Your task to perform on an android device: visit the assistant section in the google photos Image 0: 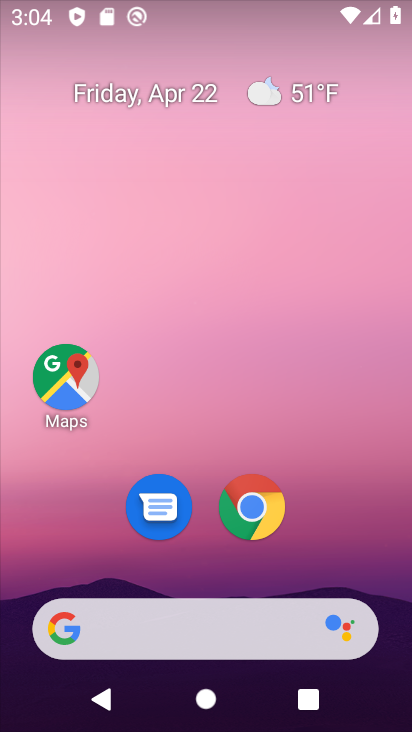
Step 0: drag from (215, 574) to (378, 26)
Your task to perform on an android device: visit the assistant section in the google photos Image 1: 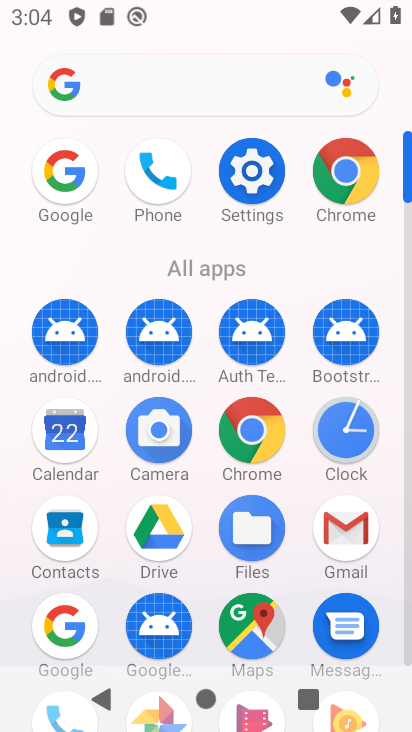
Step 1: drag from (204, 590) to (182, 326)
Your task to perform on an android device: visit the assistant section in the google photos Image 2: 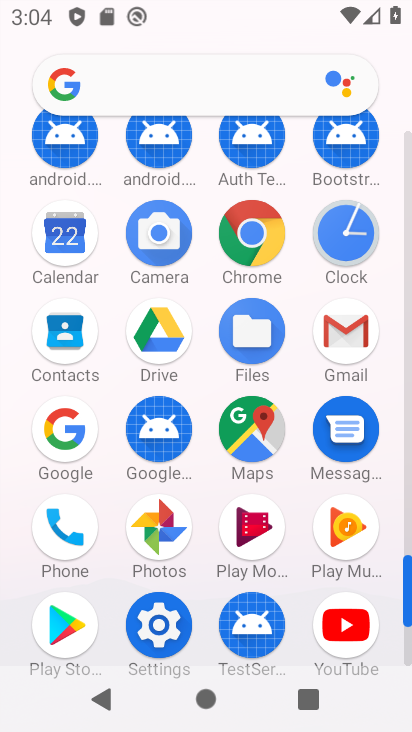
Step 2: click (171, 532)
Your task to perform on an android device: visit the assistant section in the google photos Image 3: 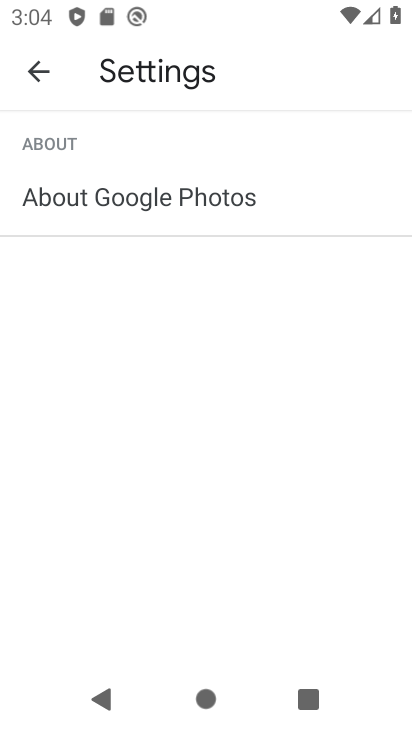
Step 3: click (32, 50)
Your task to perform on an android device: visit the assistant section in the google photos Image 4: 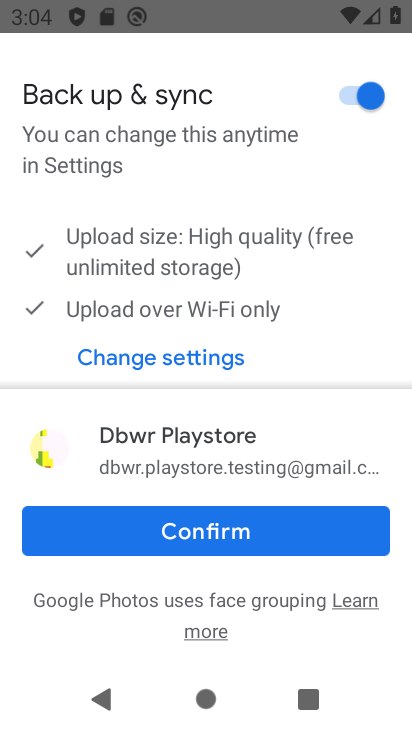
Step 4: click (195, 529)
Your task to perform on an android device: visit the assistant section in the google photos Image 5: 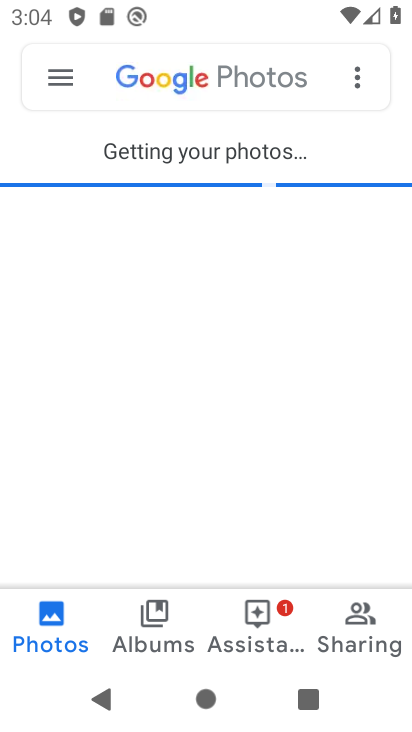
Step 5: click (230, 630)
Your task to perform on an android device: visit the assistant section in the google photos Image 6: 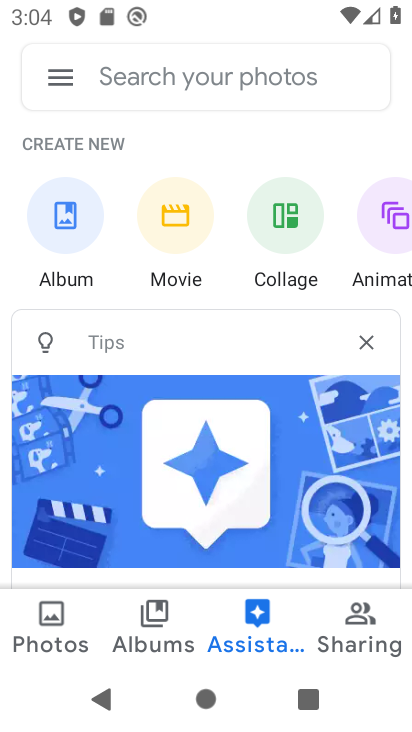
Step 6: task complete